Your task to perform on an android device: turn on location history Image 0: 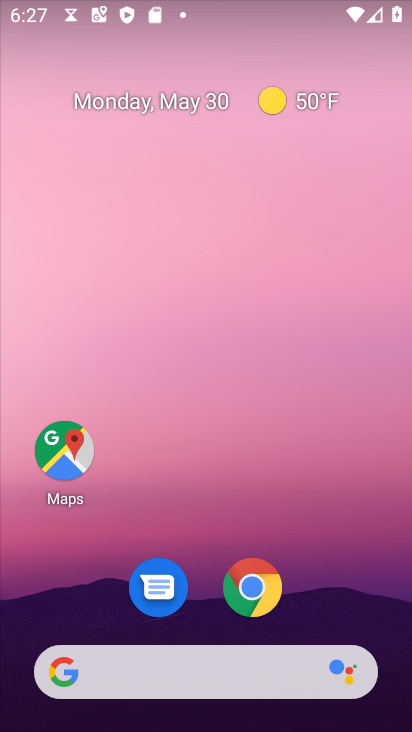
Step 0: drag from (316, 532) to (164, 9)
Your task to perform on an android device: turn on location history Image 1: 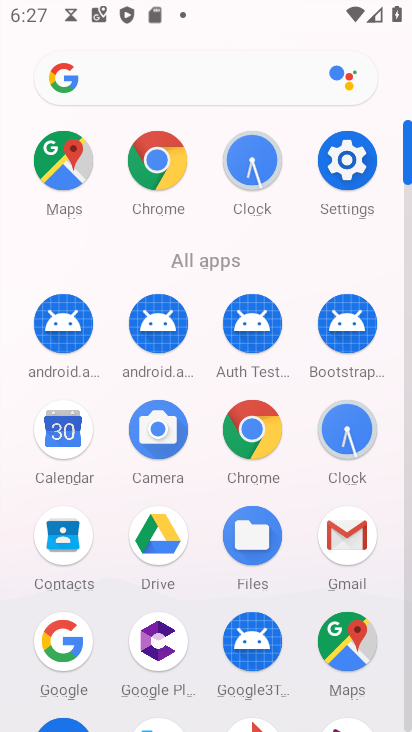
Step 1: click (345, 156)
Your task to perform on an android device: turn on location history Image 2: 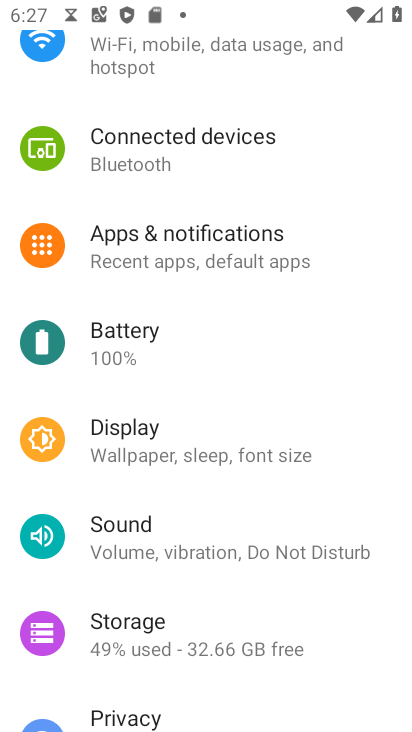
Step 2: drag from (294, 583) to (303, 135)
Your task to perform on an android device: turn on location history Image 3: 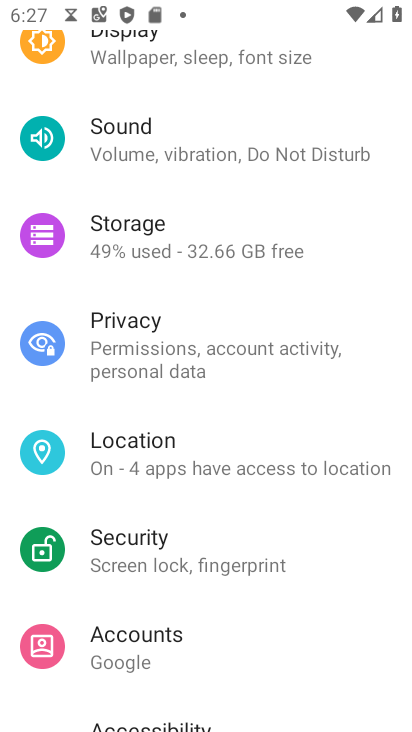
Step 3: drag from (286, 572) to (288, 138)
Your task to perform on an android device: turn on location history Image 4: 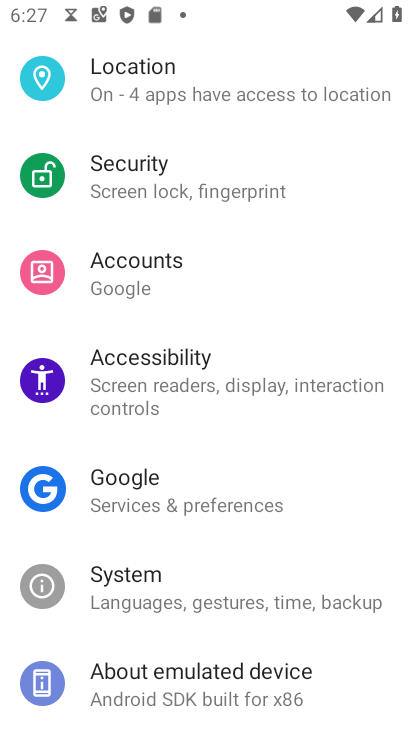
Step 4: click (200, 90)
Your task to perform on an android device: turn on location history Image 5: 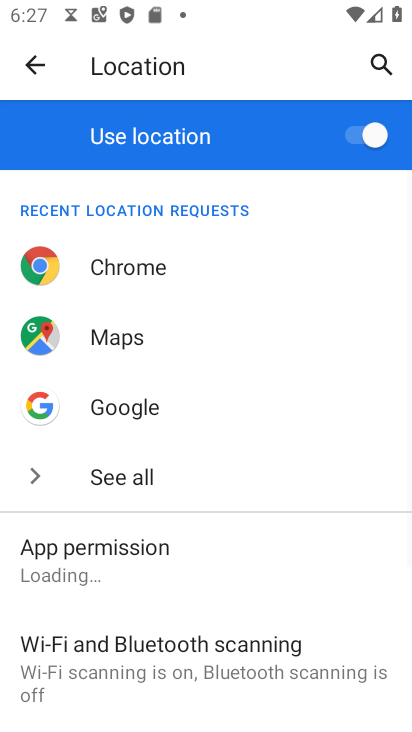
Step 5: drag from (323, 561) to (283, 145)
Your task to perform on an android device: turn on location history Image 6: 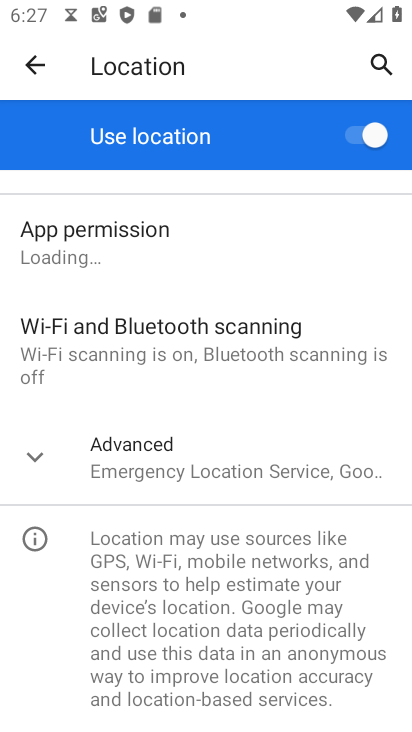
Step 6: click (38, 455)
Your task to perform on an android device: turn on location history Image 7: 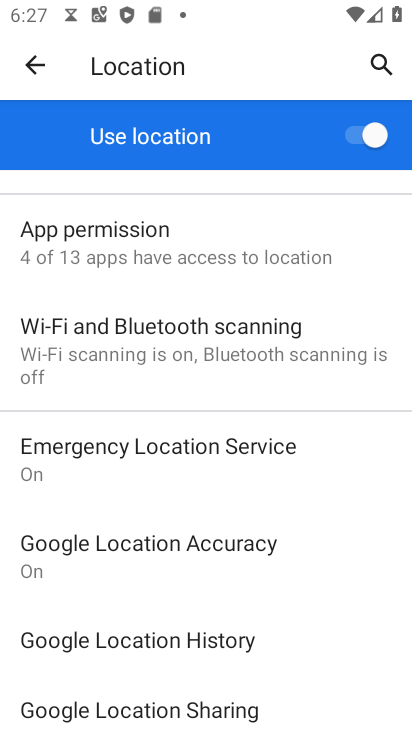
Step 7: drag from (348, 589) to (301, 211)
Your task to perform on an android device: turn on location history Image 8: 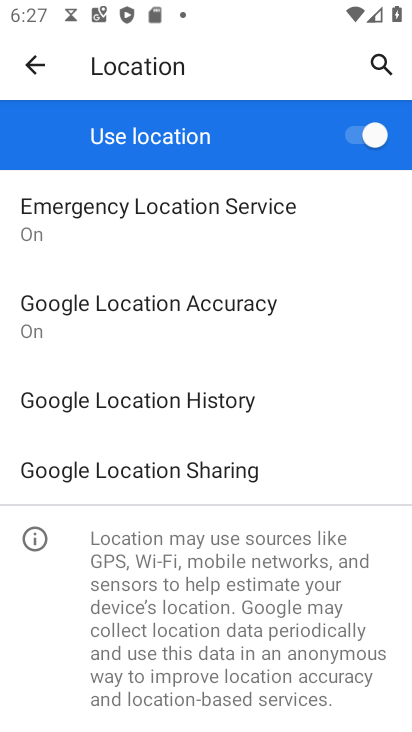
Step 8: click (188, 399)
Your task to perform on an android device: turn on location history Image 9: 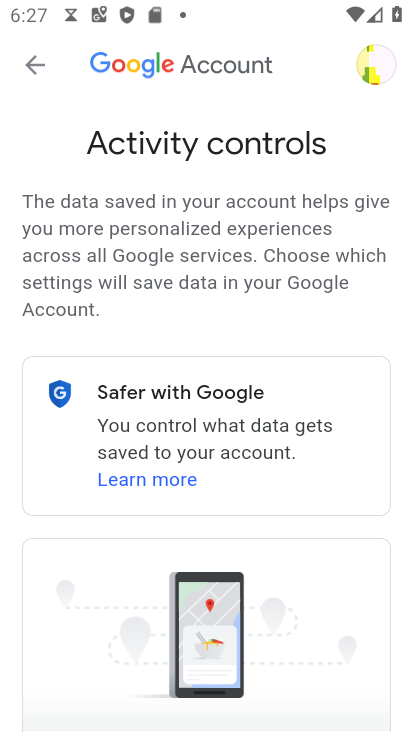
Step 9: drag from (244, 477) to (248, 77)
Your task to perform on an android device: turn on location history Image 10: 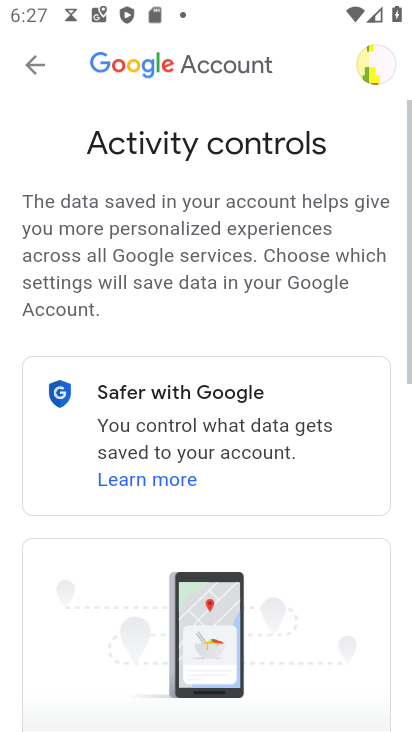
Step 10: drag from (263, 428) to (280, 138)
Your task to perform on an android device: turn on location history Image 11: 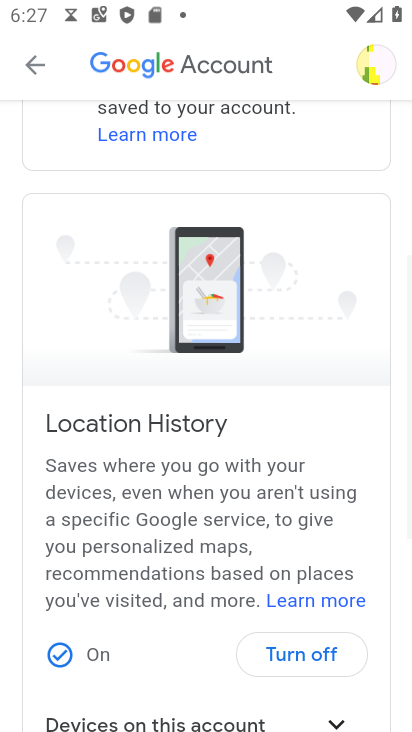
Step 11: drag from (301, 542) to (311, 202)
Your task to perform on an android device: turn on location history Image 12: 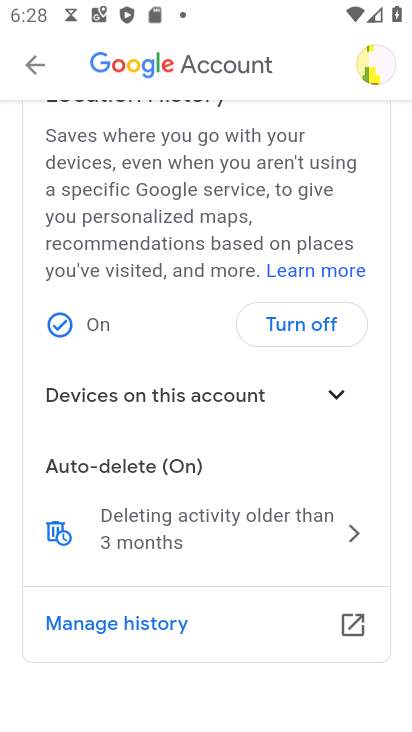
Step 12: drag from (192, 351) to (191, 136)
Your task to perform on an android device: turn on location history Image 13: 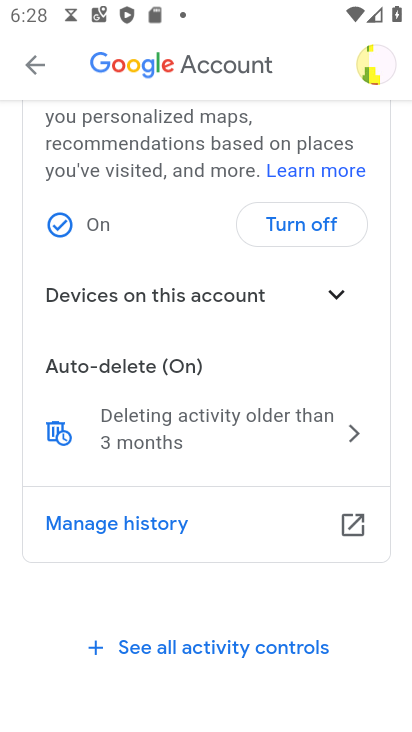
Step 13: click (196, 183)
Your task to perform on an android device: turn on location history Image 14: 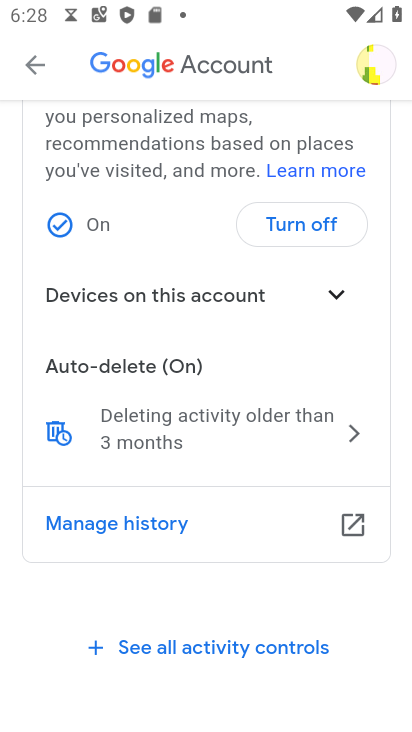
Step 14: click (196, 515)
Your task to perform on an android device: turn on location history Image 15: 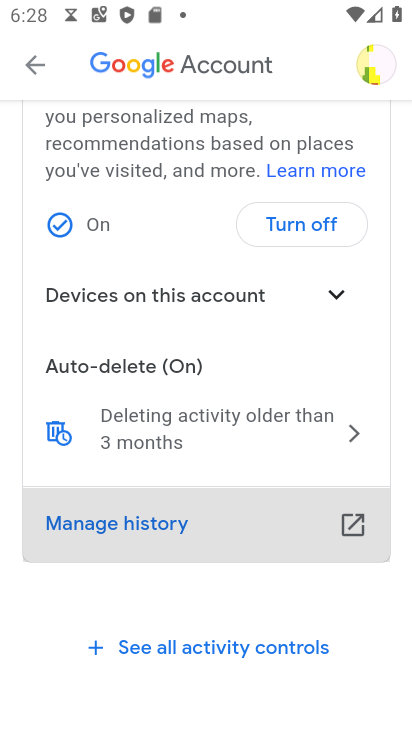
Step 15: task complete